Your task to perform on an android device: Is it going to rain today? Image 0: 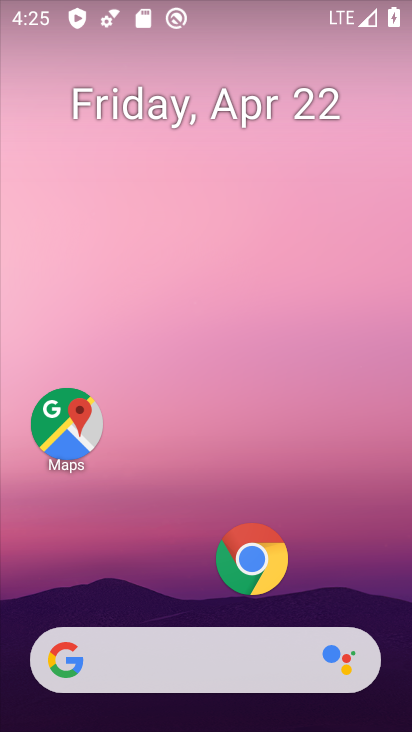
Step 0: click (170, 662)
Your task to perform on an android device: Is it going to rain today? Image 1: 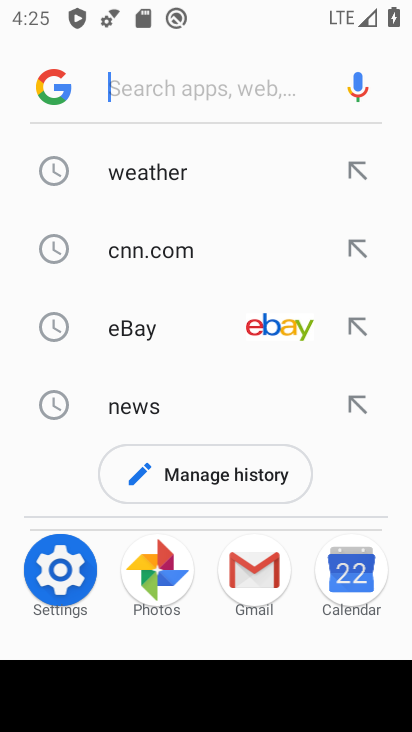
Step 1: click (127, 162)
Your task to perform on an android device: Is it going to rain today? Image 2: 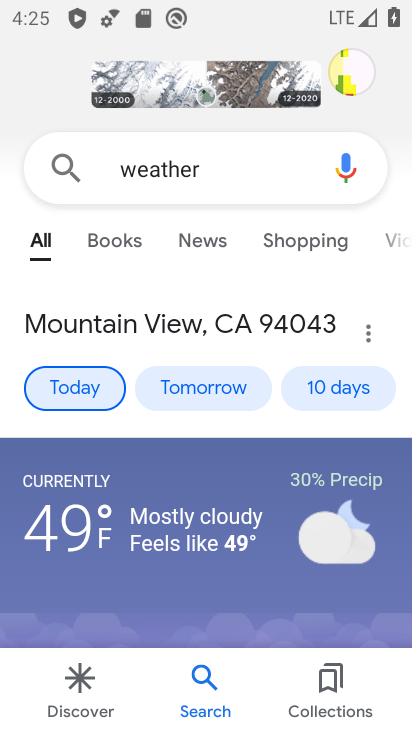
Step 2: task complete